Your task to perform on an android device: Go to network settings Image 0: 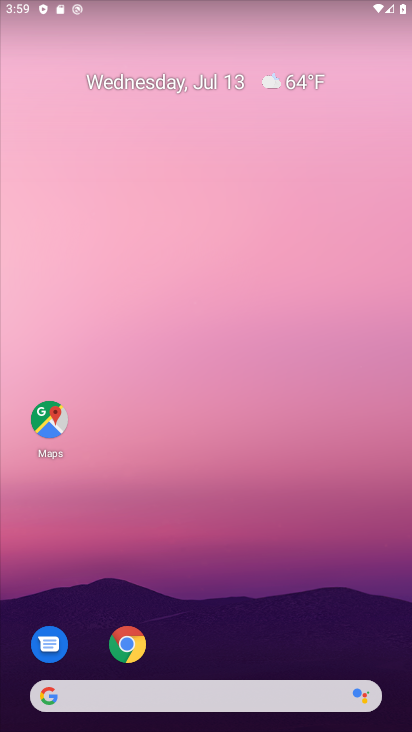
Step 0: drag from (236, 545) to (181, 70)
Your task to perform on an android device: Go to network settings Image 1: 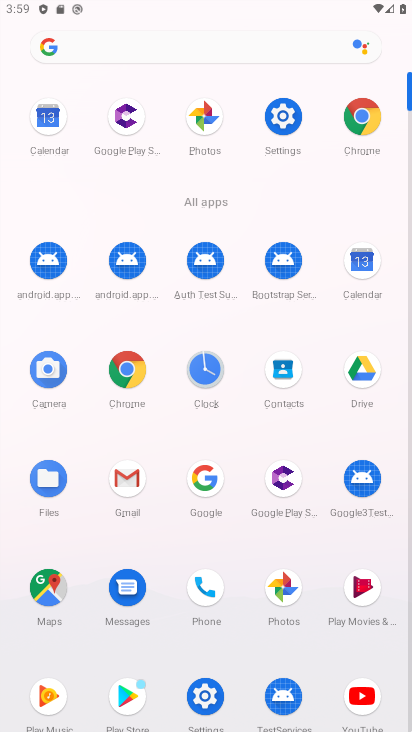
Step 1: click (278, 112)
Your task to perform on an android device: Go to network settings Image 2: 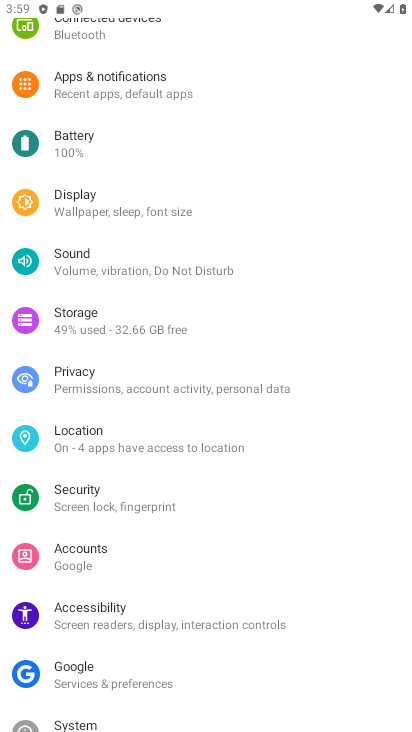
Step 2: drag from (263, 164) to (290, 395)
Your task to perform on an android device: Go to network settings Image 3: 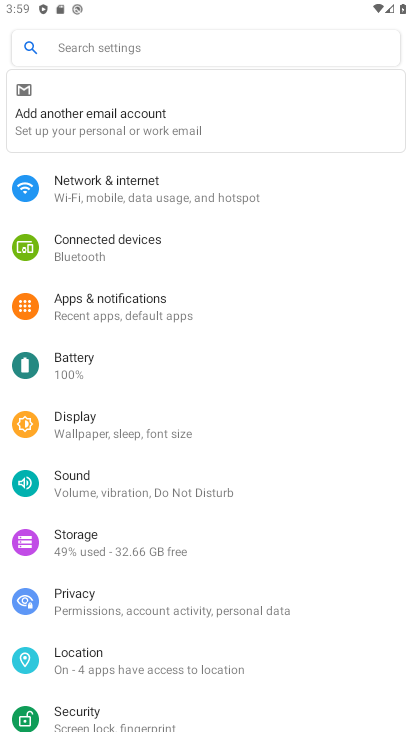
Step 3: click (121, 190)
Your task to perform on an android device: Go to network settings Image 4: 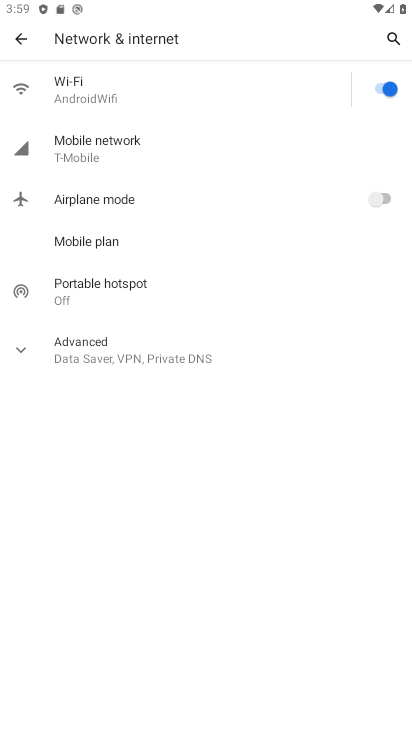
Step 4: task complete